Your task to perform on an android device: open chrome privacy settings Image 0: 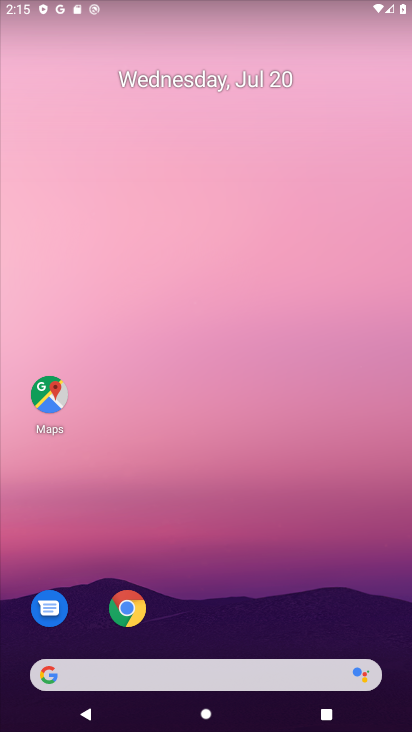
Step 0: click (130, 610)
Your task to perform on an android device: open chrome privacy settings Image 1: 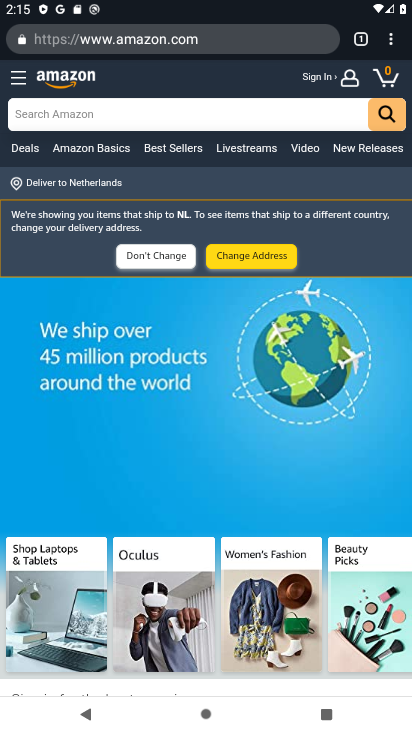
Step 1: click (388, 41)
Your task to perform on an android device: open chrome privacy settings Image 2: 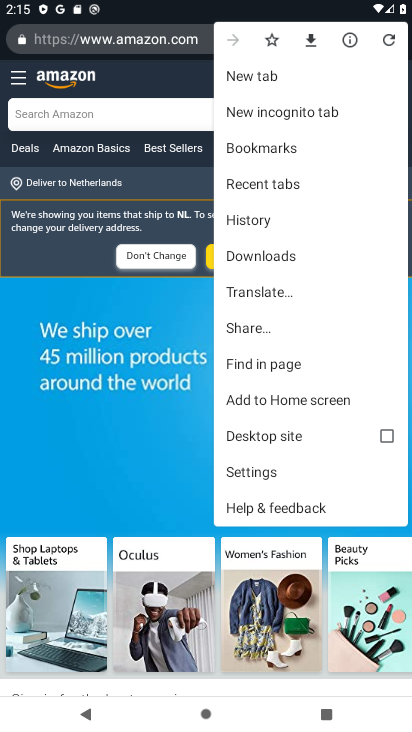
Step 2: click (280, 465)
Your task to perform on an android device: open chrome privacy settings Image 3: 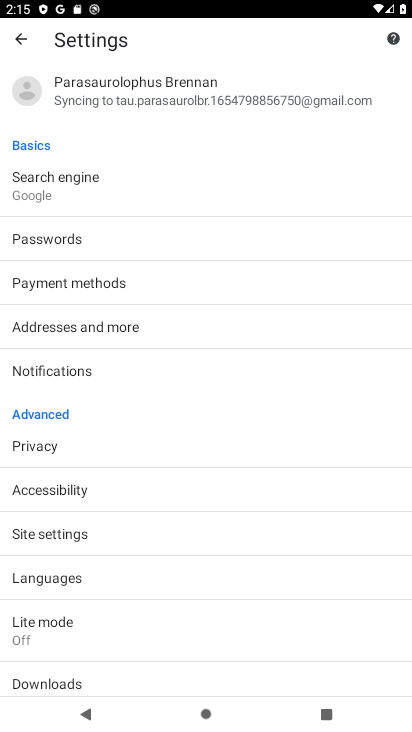
Step 3: click (44, 439)
Your task to perform on an android device: open chrome privacy settings Image 4: 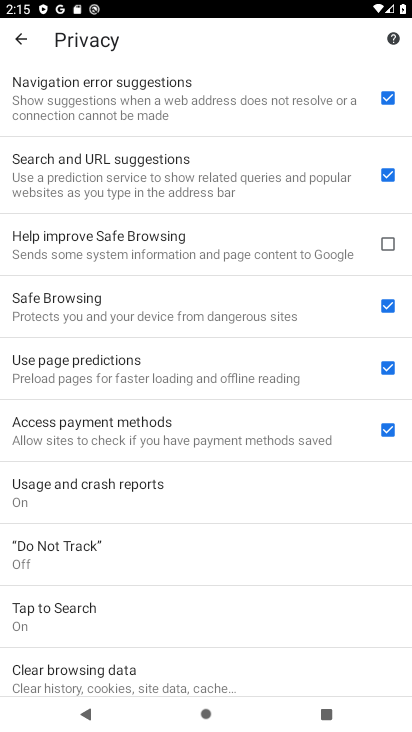
Step 4: task complete